Your task to perform on an android device: delete location history Image 0: 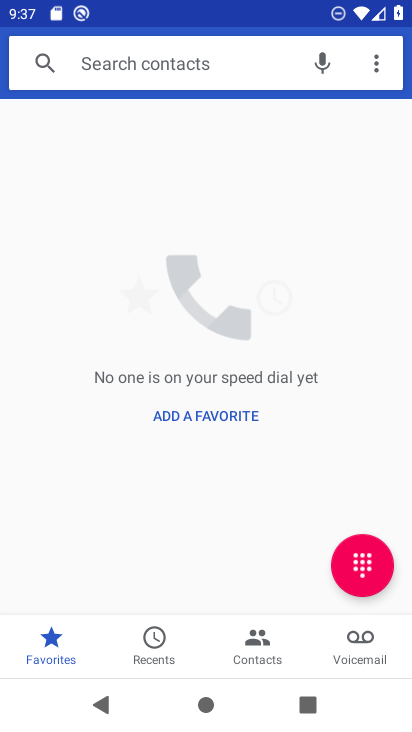
Step 0: press home button
Your task to perform on an android device: delete location history Image 1: 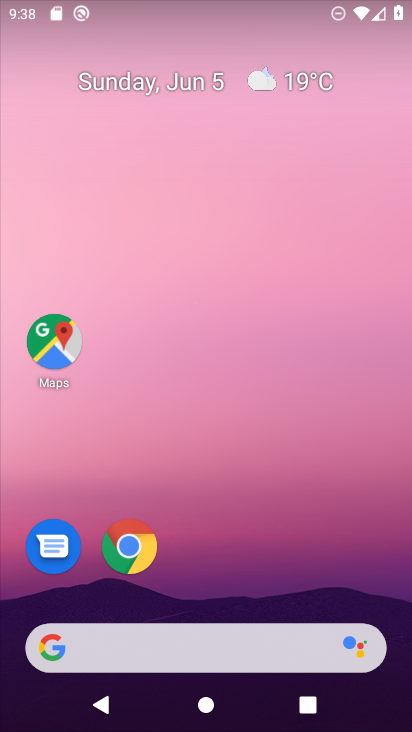
Step 1: drag from (212, 610) to (175, 80)
Your task to perform on an android device: delete location history Image 2: 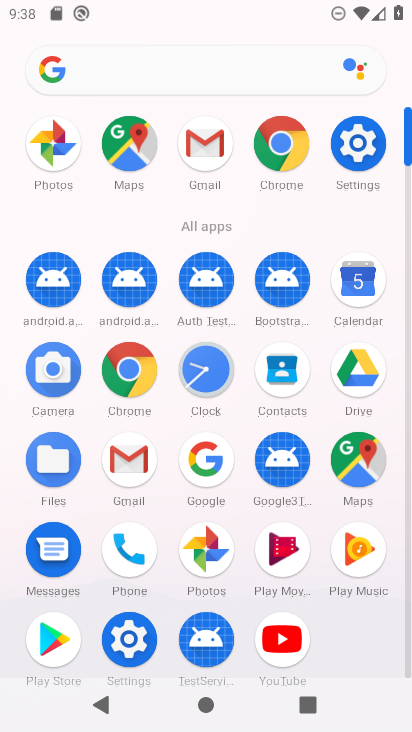
Step 2: click (354, 462)
Your task to perform on an android device: delete location history Image 3: 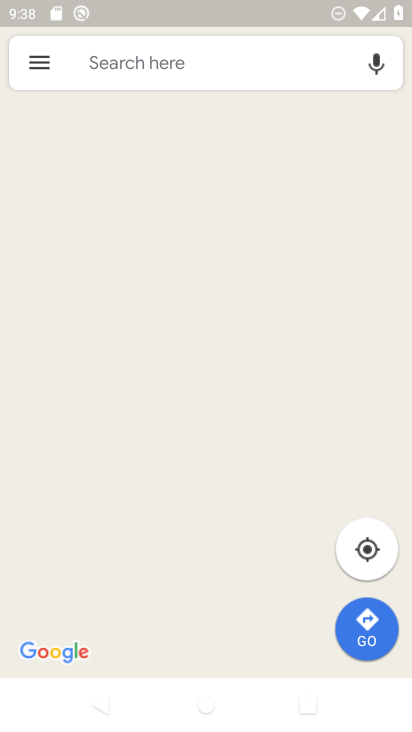
Step 3: click (39, 62)
Your task to perform on an android device: delete location history Image 4: 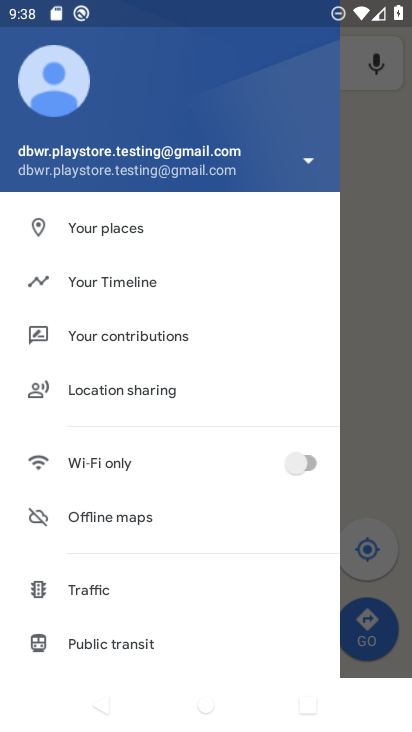
Step 4: click (119, 299)
Your task to perform on an android device: delete location history Image 5: 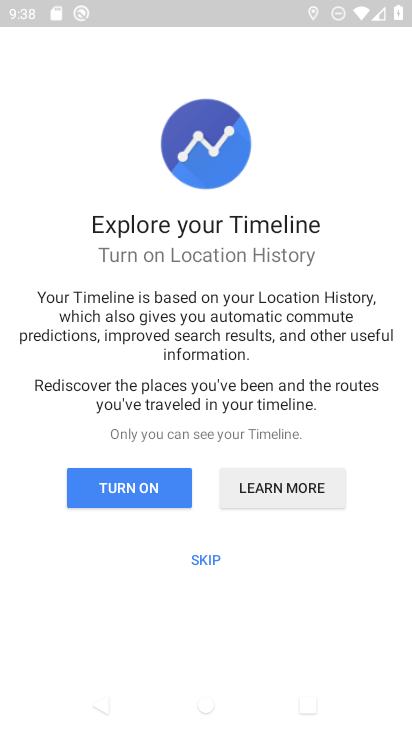
Step 5: click (212, 555)
Your task to perform on an android device: delete location history Image 6: 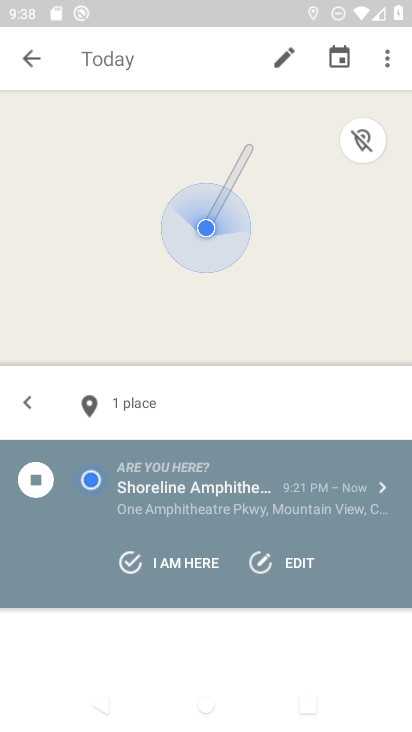
Step 6: click (384, 69)
Your task to perform on an android device: delete location history Image 7: 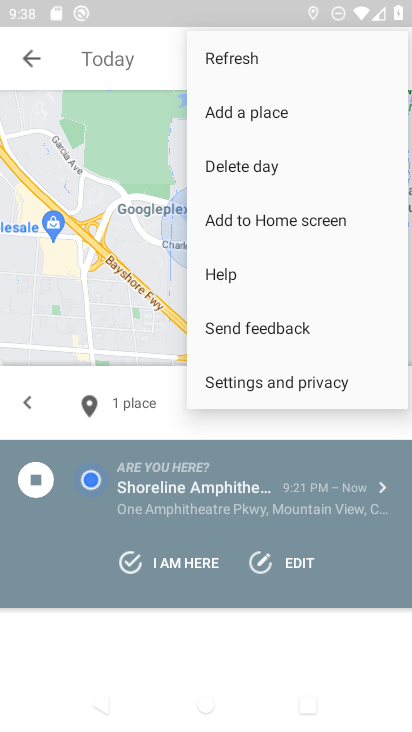
Step 7: click (252, 363)
Your task to perform on an android device: delete location history Image 8: 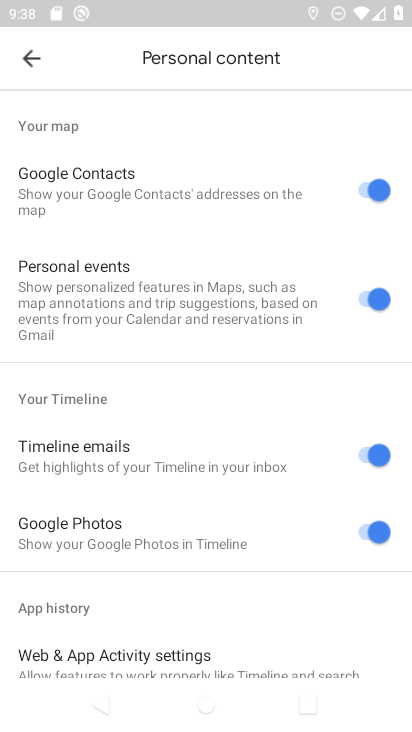
Step 8: drag from (295, 649) to (208, 170)
Your task to perform on an android device: delete location history Image 9: 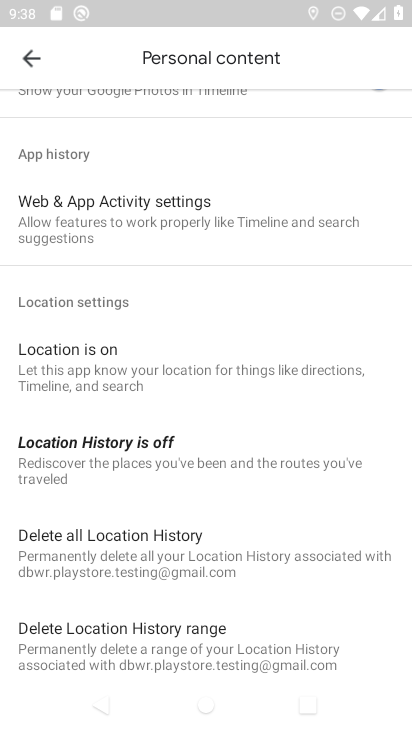
Step 9: click (165, 567)
Your task to perform on an android device: delete location history Image 10: 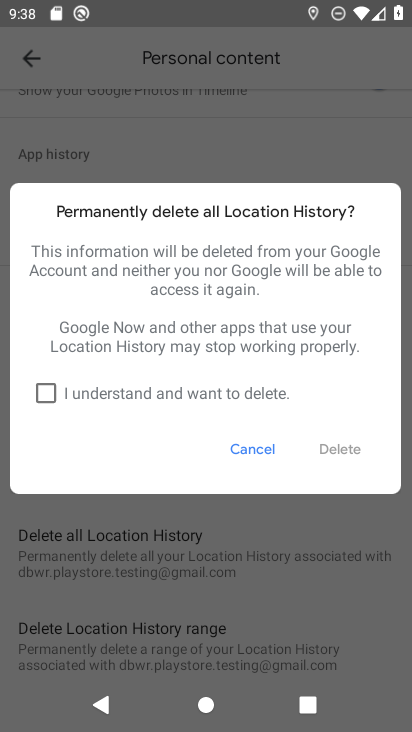
Step 10: click (53, 399)
Your task to perform on an android device: delete location history Image 11: 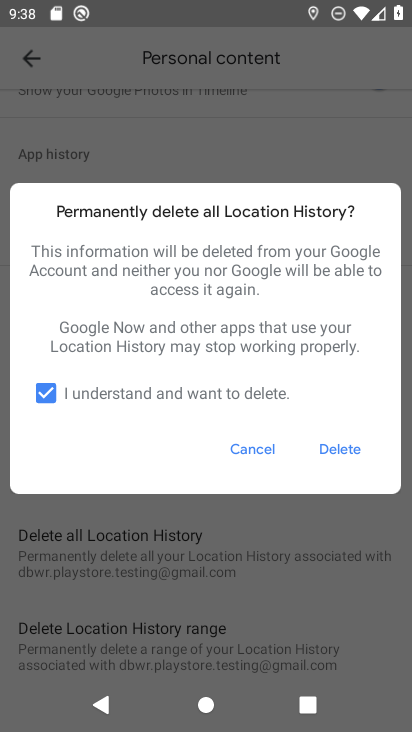
Step 11: click (321, 464)
Your task to perform on an android device: delete location history Image 12: 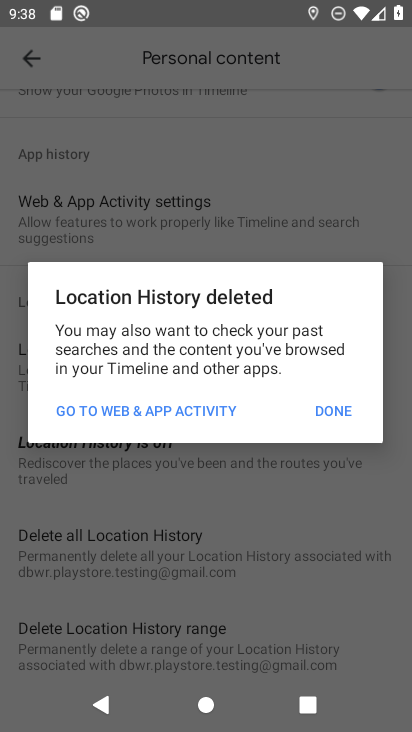
Step 12: click (331, 422)
Your task to perform on an android device: delete location history Image 13: 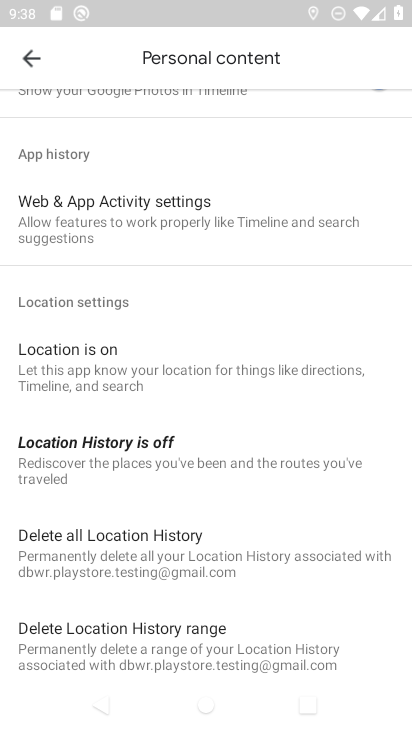
Step 13: task complete